Your task to perform on an android device: Search for logitech g903 on target.com, select the first entry, and add it to the cart. Image 0: 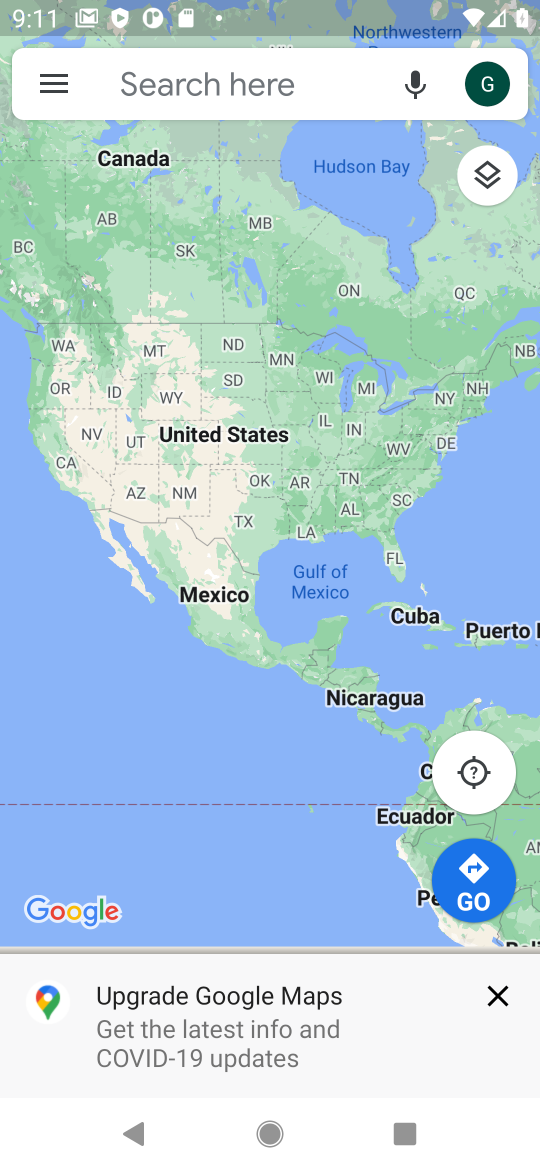
Step 0: press home button
Your task to perform on an android device: Search for logitech g903 on target.com, select the first entry, and add it to the cart. Image 1: 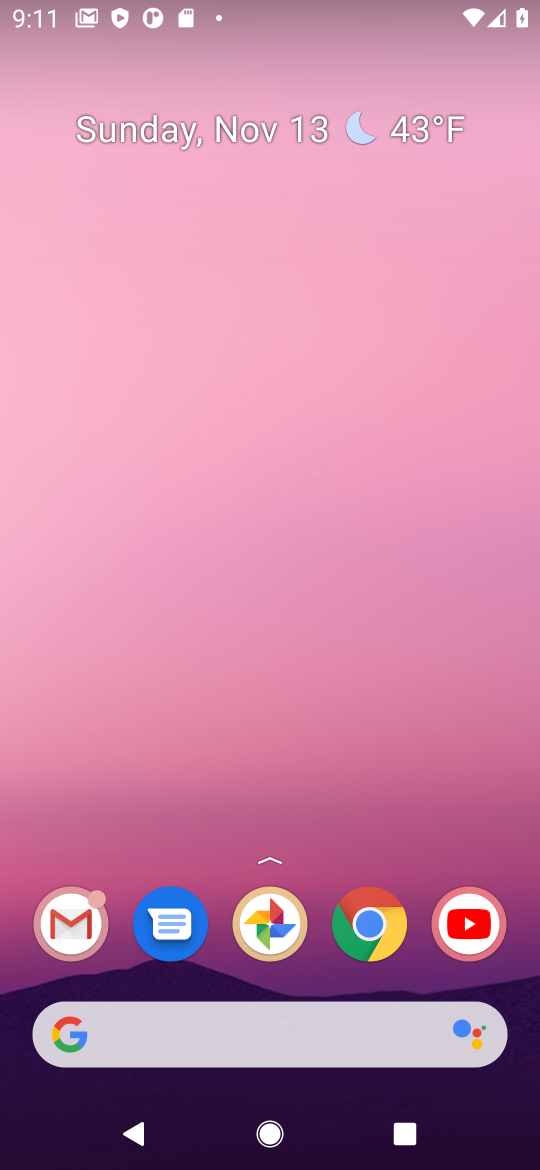
Step 1: click (360, 939)
Your task to perform on an android device: Search for logitech g903 on target.com, select the first entry, and add it to the cart. Image 2: 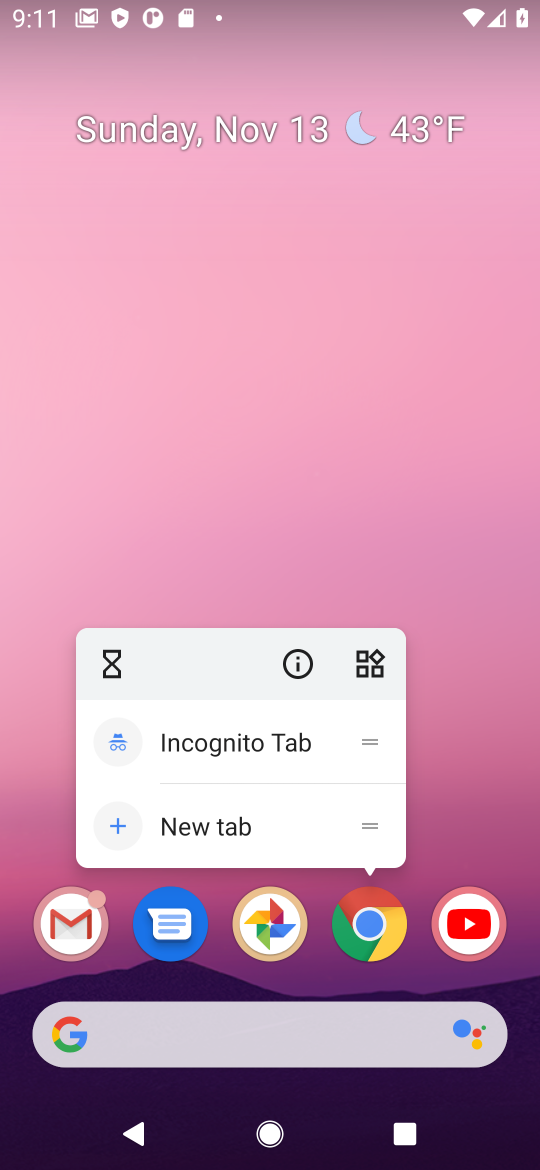
Step 2: click (384, 917)
Your task to perform on an android device: Search for logitech g903 on target.com, select the first entry, and add it to the cart. Image 3: 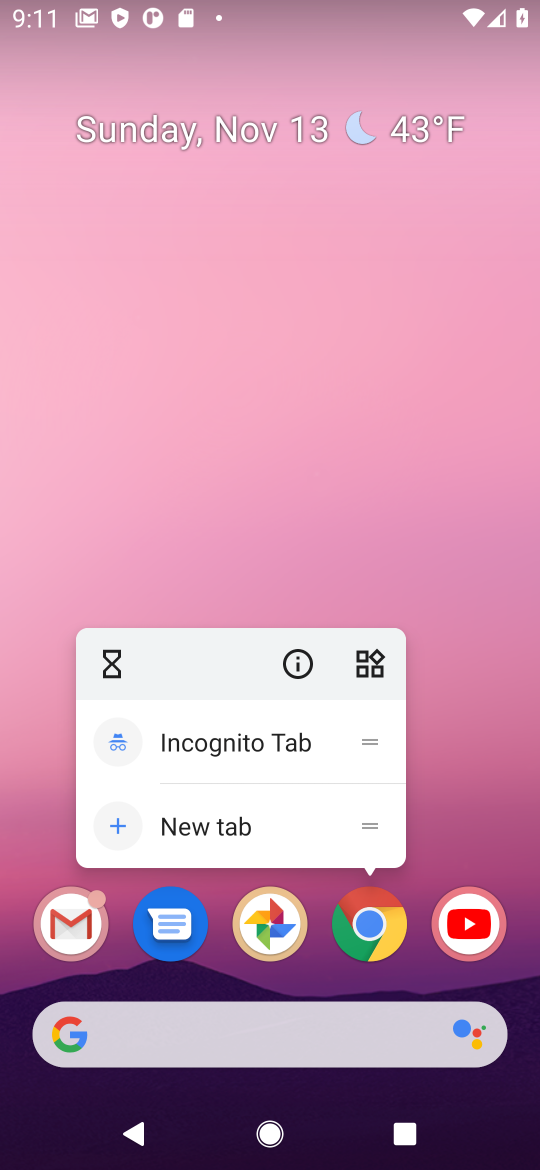
Step 3: click (384, 915)
Your task to perform on an android device: Search for logitech g903 on target.com, select the first entry, and add it to the cart. Image 4: 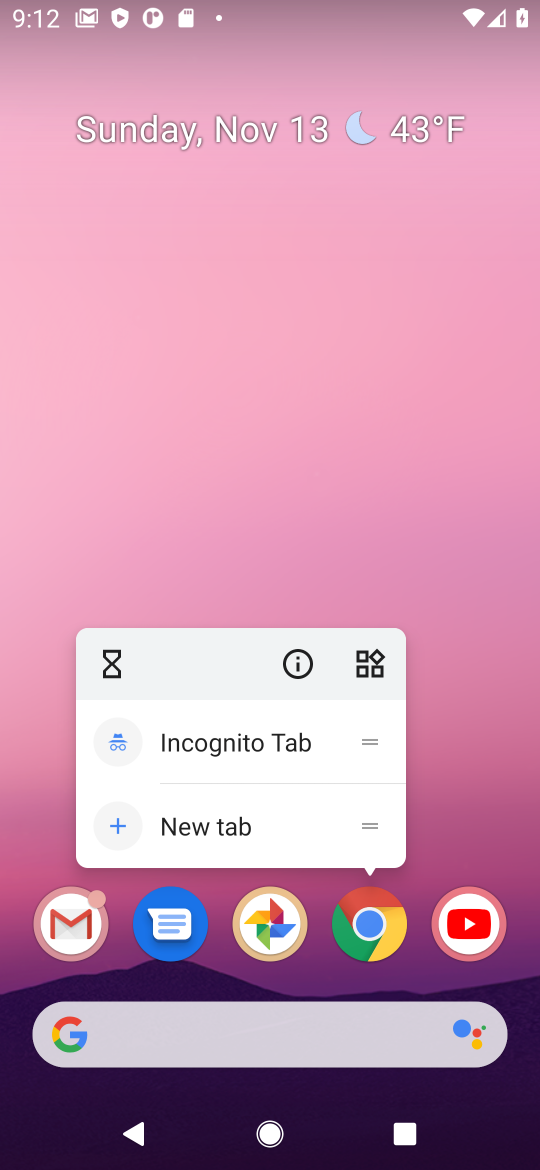
Step 4: click (367, 927)
Your task to perform on an android device: Search for logitech g903 on target.com, select the first entry, and add it to the cart. Image 5: 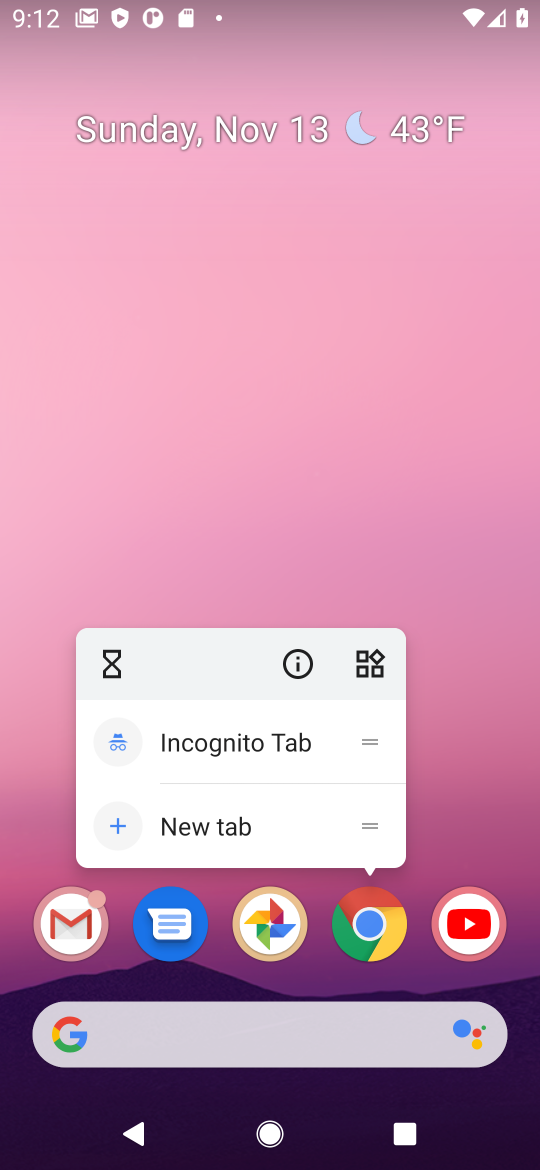
Step 5: click (367, 930)
Your task to perform on an android device: Search for logitech g903 on target.com, select the first entry, and add it to the cart. Image 6: 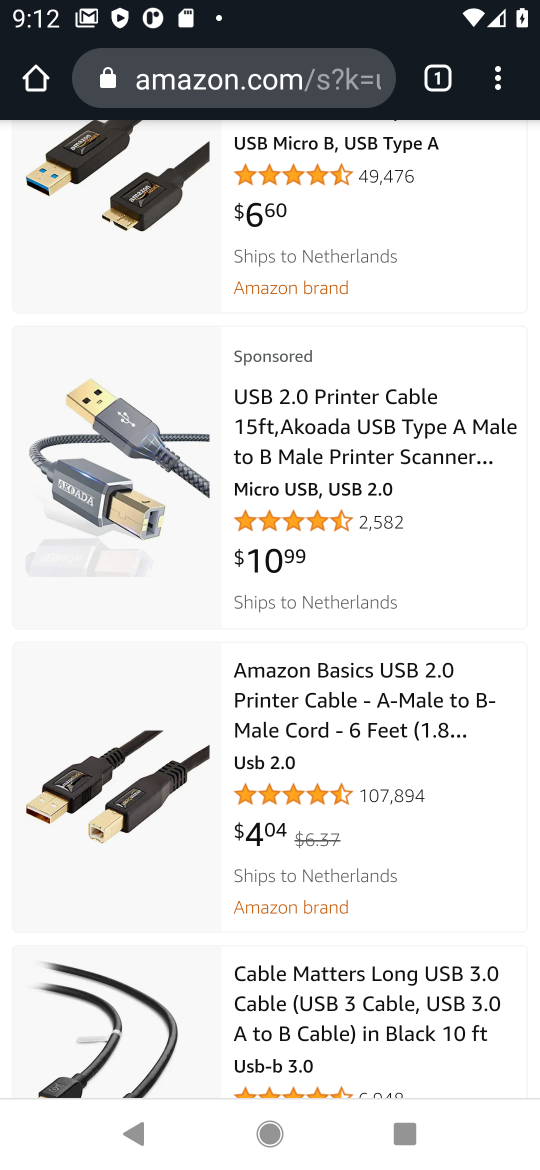
Step 6: click (308, 80)
Your task to perform on an android device: Search for logitech g903 on target.com, select the first entry, and add it to the cart. Image 7: 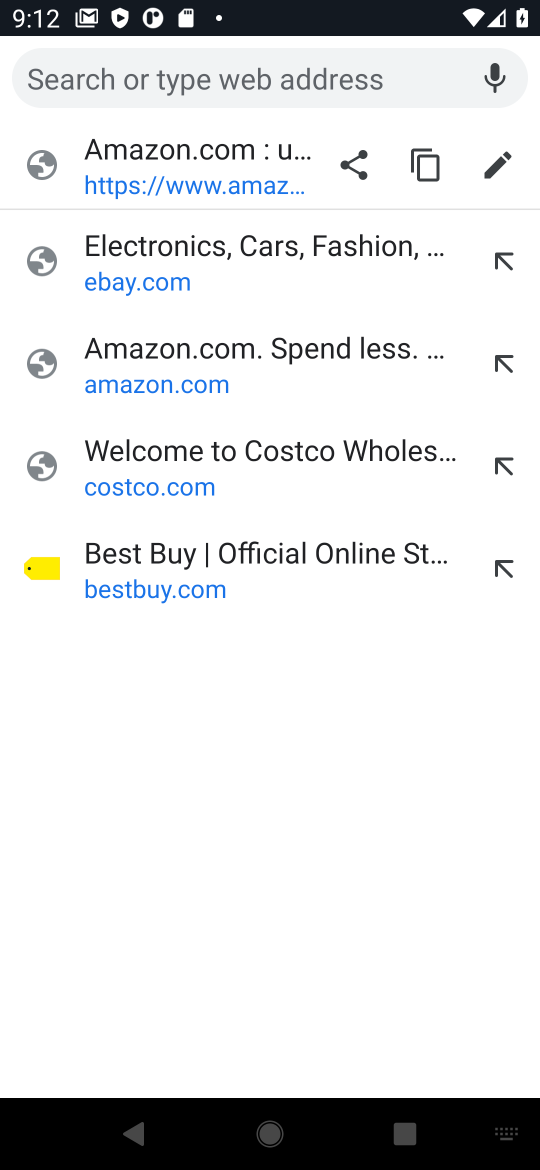
Step 7: type "target.com"
Your task to perform on an android device: Search for logitech g903 on target.com, select the first entry, and add it to the cart. Image 8: 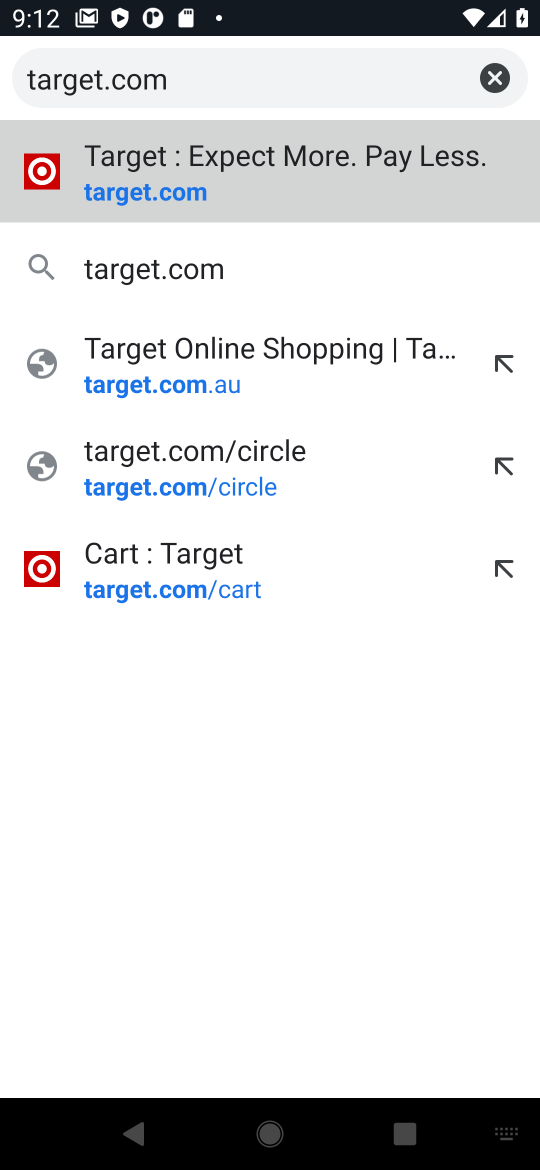
Step 8: press enter
Your task to perform on an android device: Search for logitech g903 on target.com, select the first entry, and add it to the cart. Image 9: 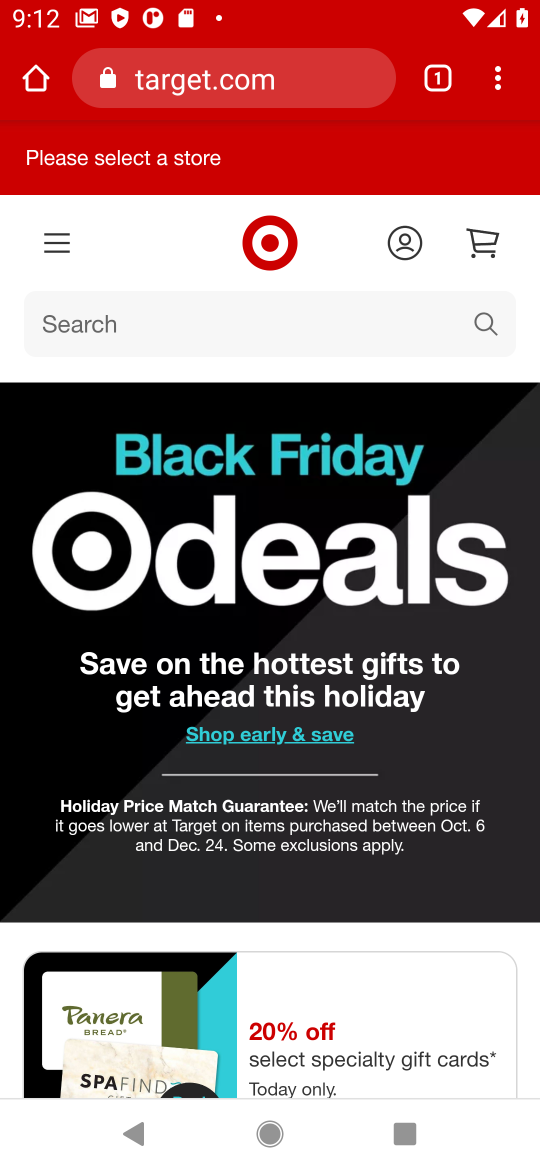
Step 9: click (177, 319)
Your task to perform on an android device: Search for logitech g903 on target.com, select the first entry, and add it to the cart. Image 10: 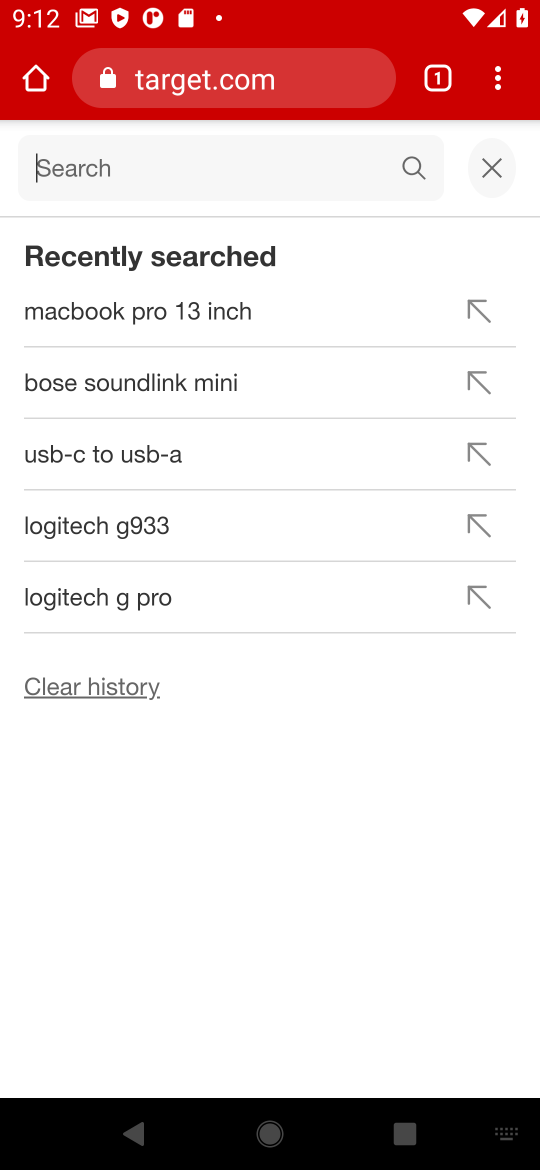
Step 10: type " logitech g903 "
Your task to perform on an android device: Search for logitech g903 on target.com, select the first entry, and add it to the cart. Image 11: 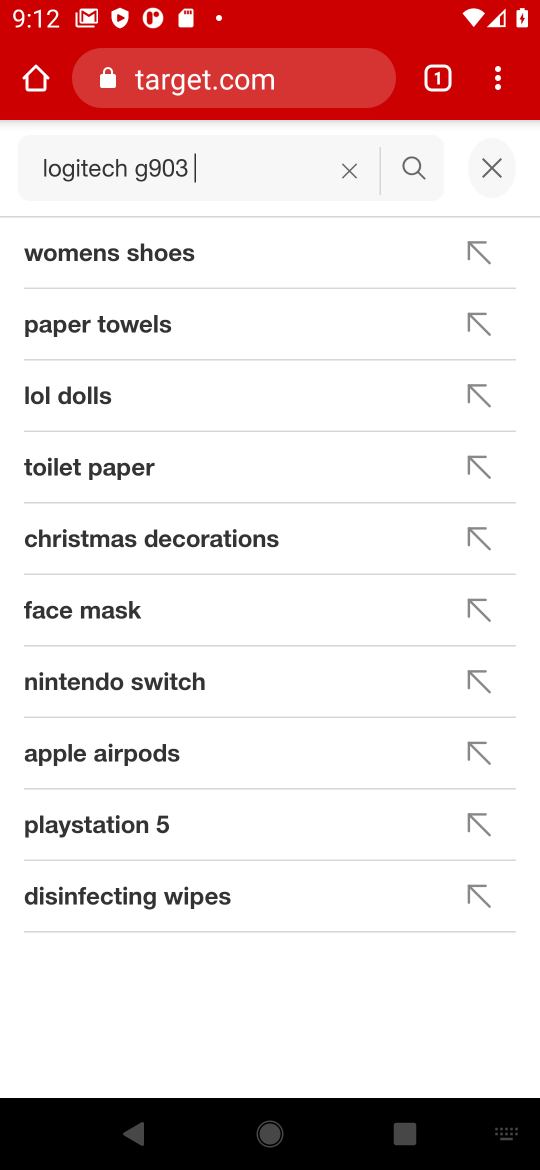
Step 11: press enter
Your task to perform on an android device: Search for logitech g903 on target.com, select the first entry, and add it to the cart. Image 12: 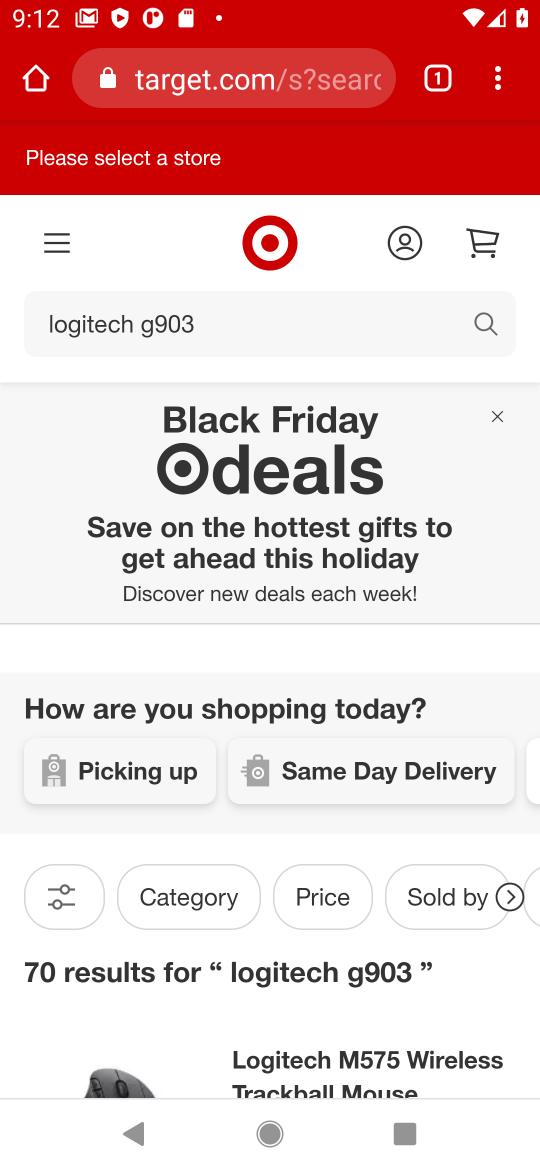
Step 12: task complete